Your task to perform on an android device: What's the weather going to be tomorrow? Image 0: 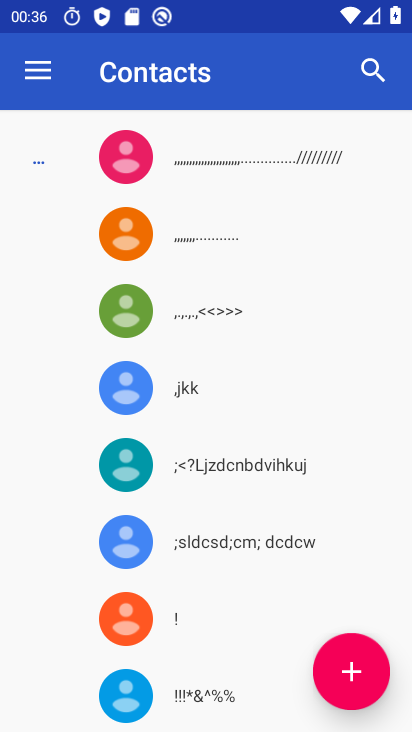
Step 0: press home button
Your task to perform on an android device: What's the weather going to be tomorrow? Image 1: 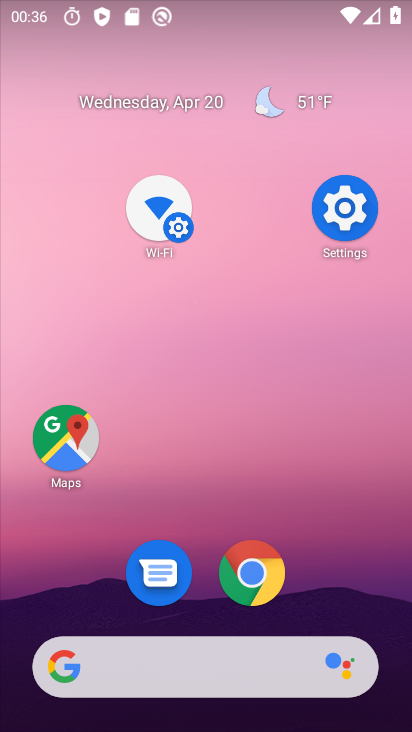
Step 1: drag from (327, 545) to (307, 79)
Your task to perform on an android device: What's the weather going to be tomorrow? Image 2: 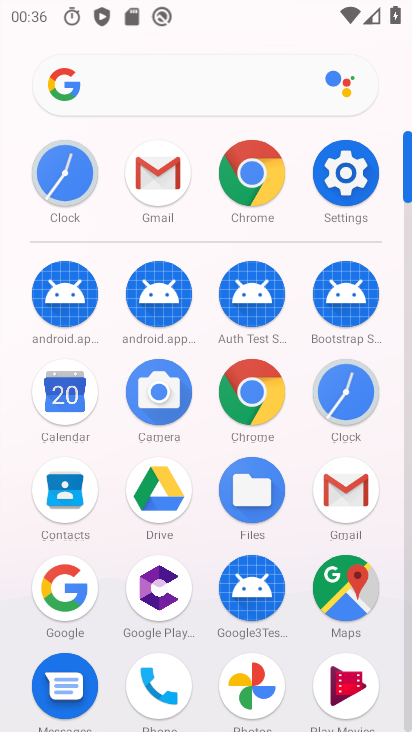
Step 2: click (264, 211)
Your task to perform on an android device: What's the weather going to be tomorrow? Image 3: 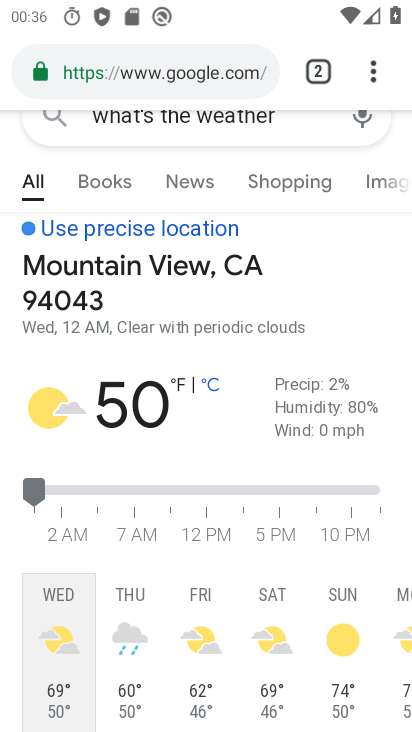
Step 3: click (144, 67)
Your task to perform on an android device: What's the weather going to be tomorrow? Image 4: 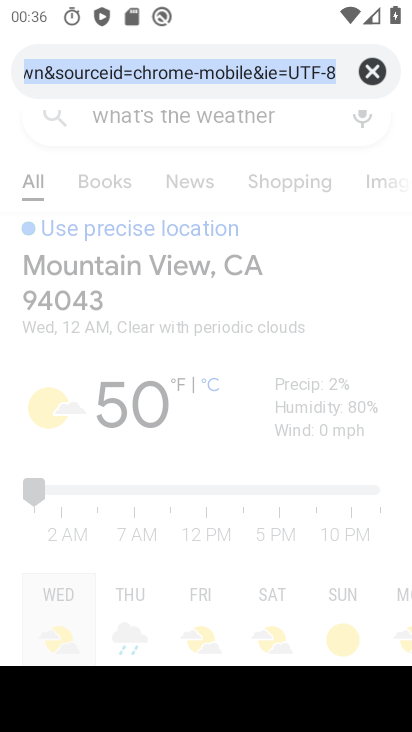
Step 4: type "weather going to be tomorrow"
Your task to perform on an android device: What's the weather going to be tomorrow? Image 5: 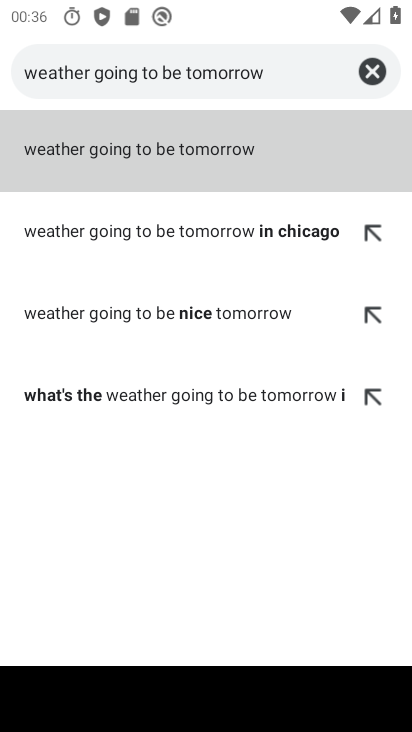
Step 5: click (172, 169)
Your task to perform on an android device: What's the weather going to be tomorrow? Image 6: 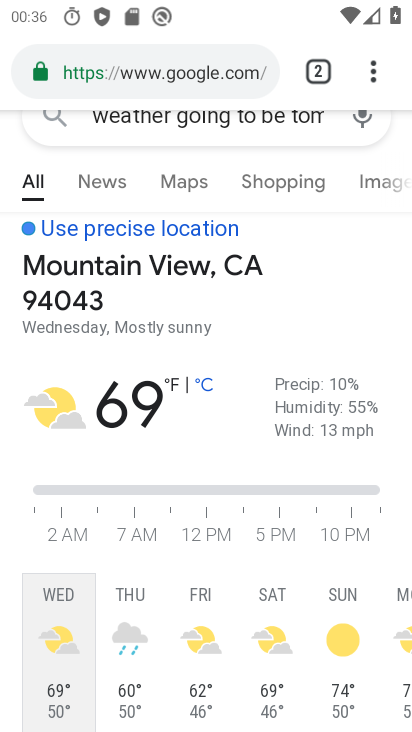
Step 6: task complete